Your task to perform on an android device: Show me popular videos on Youtube Image 0: 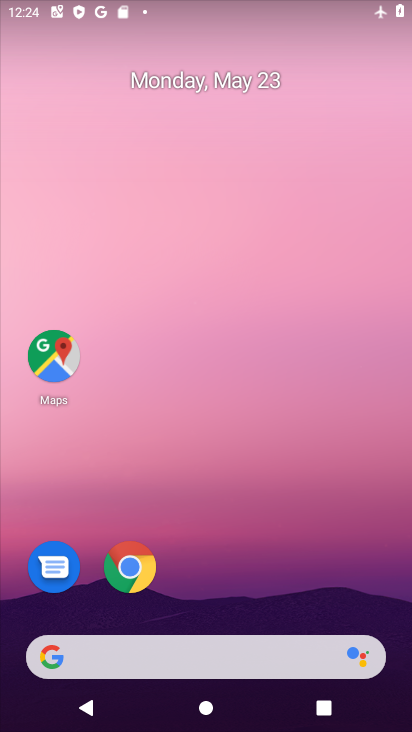
Step 0: drag from (224, 606) to (187, 52)
Your task to perform on an android device: Show me popular videos on Youtube Image 1: 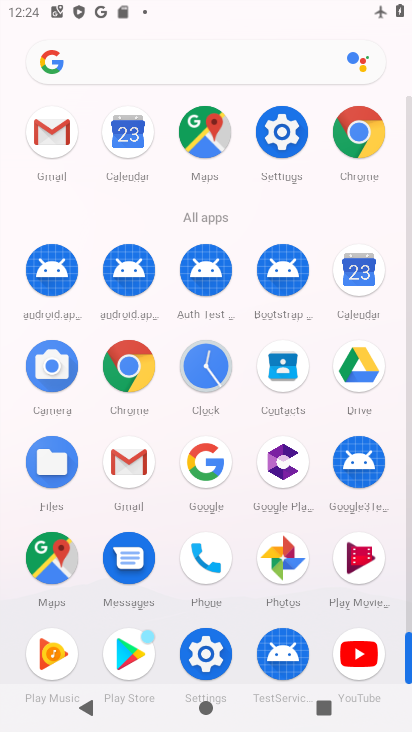
Step 1: click (369, 650)
Your task to perform on an android device: Show me popular videos on Youtube Image 2: 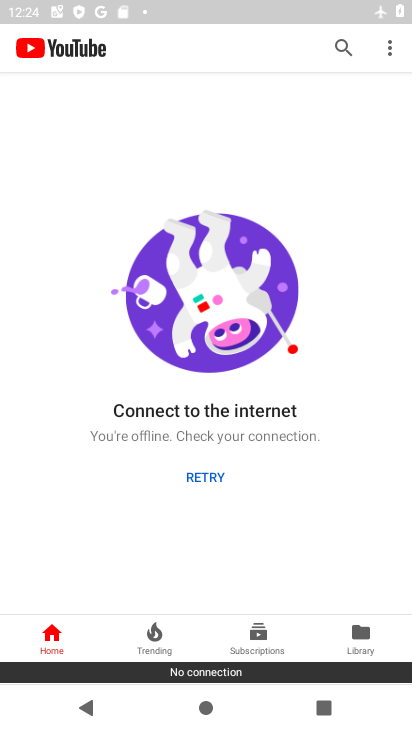
Step 2: click (269, 632)
Your task to perform on an android device: Show me popular videos on Youtube Image 3: 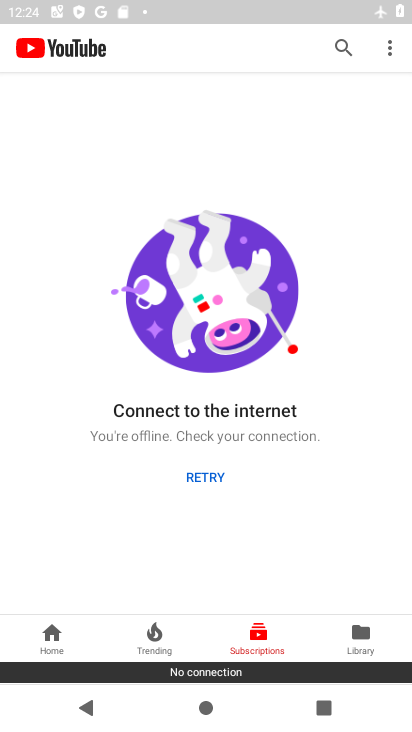
Step 3: click (155, 641)
Your task to perform on an android device: Show me popular videos on Youtube Image 4: 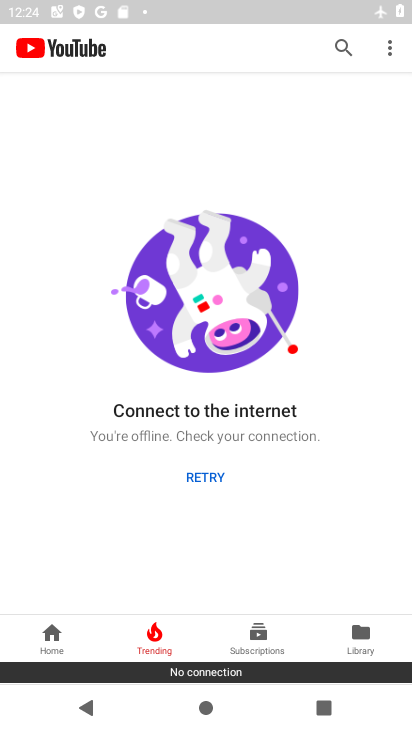
Step 4: task complete